Your task to perform on an android device: toggle notifications settings in the gmail app Image 0: 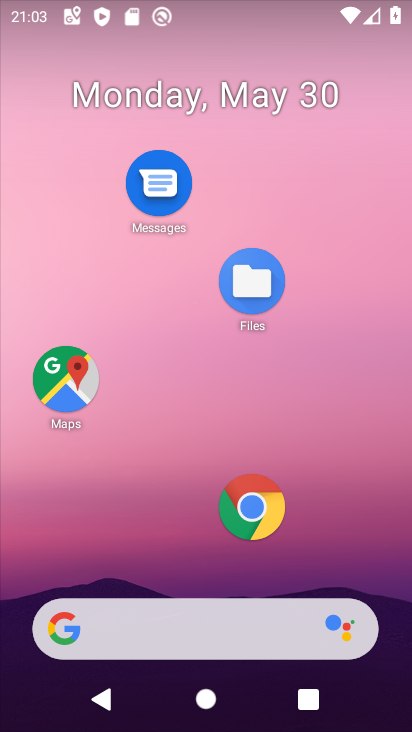
Step 0: drag from (182, 570) to (249, 122)
Your task to perform on an android device: toggle notifications settings in the gmail app Image 1: 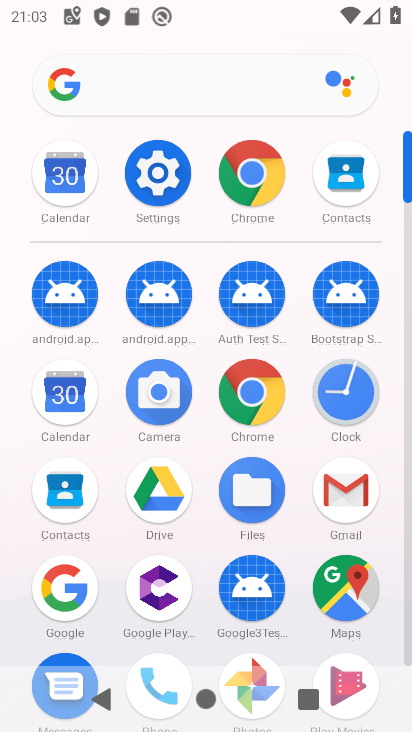
Step 1: click (340, 494)
Your task to perform on an android device: toggle notifications settings in the gmail app Image 2: 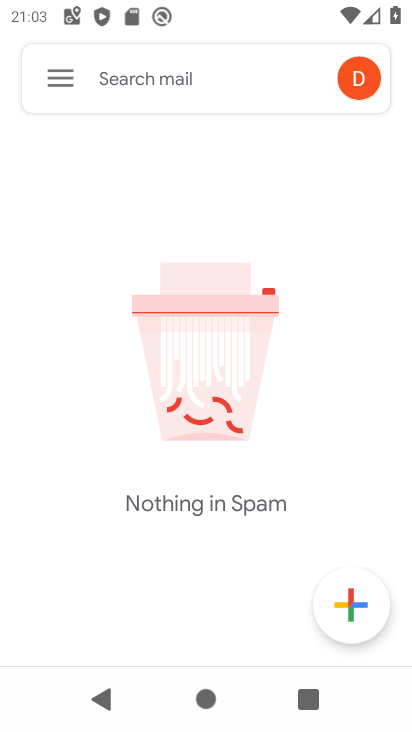
Step 2: click (70, 82)
Your task to perform on an android device: toggle notifications settings in the gmail app Image 3: 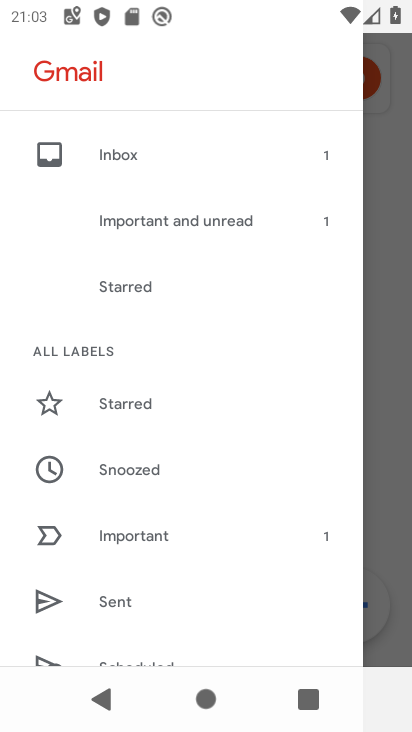
Step 3: drag from (148, 580) to (161, 397)
Your task to perform on an android device: toggle notifications settings in the gmail app Image 4: 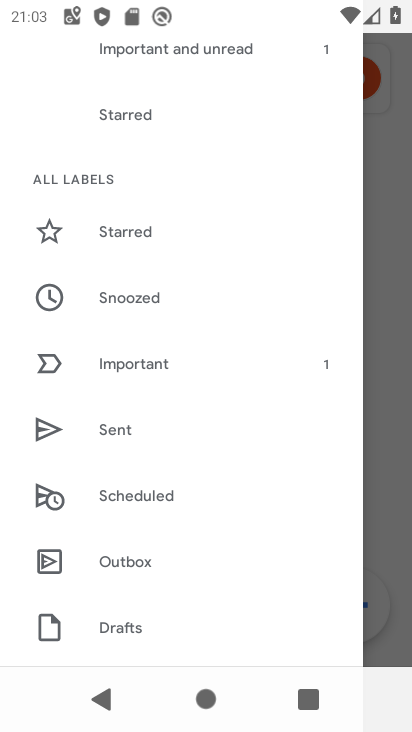
Step 4: drag from (131, 566) to (143, 408)
Your task to perform on an android device: toggle notifications settings in the gmail app Image 5: 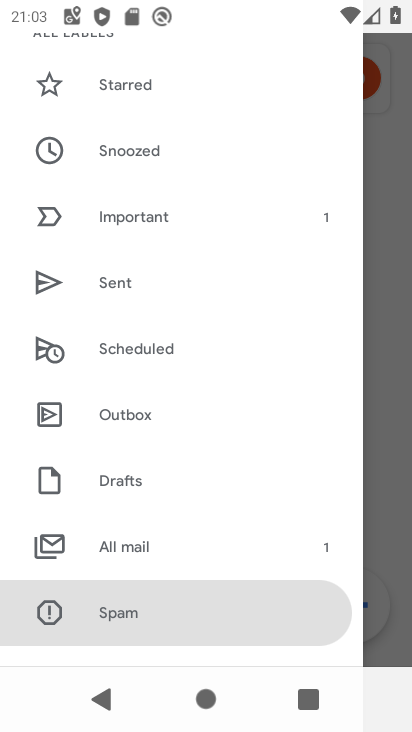
Step 5: drag from (120, 595) to (349, 4)
Your task to perform on an android device: toggle notifications settings in the gmail app Image 6: 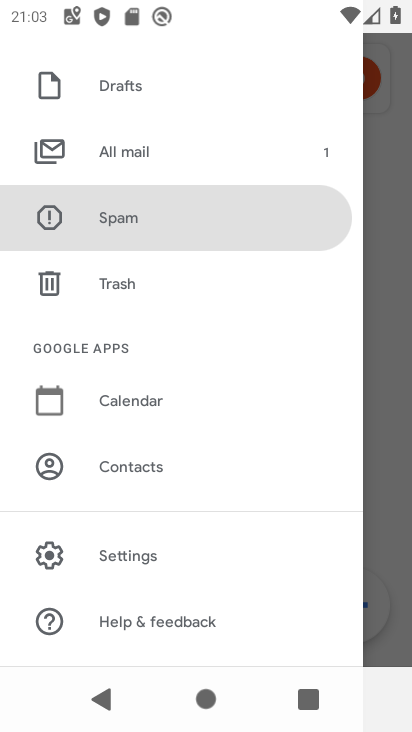
Step 6: click (147, 561)
Your task to perform on an android device: toggle notifications settings in the gmail app Image 7: 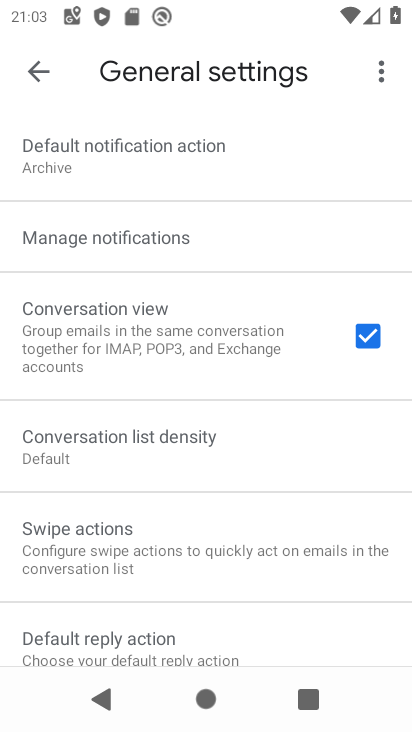
Step 7: click (215, 236)
Your task to perform on an android device: toggle notifications settings in the gmail app Image 8: 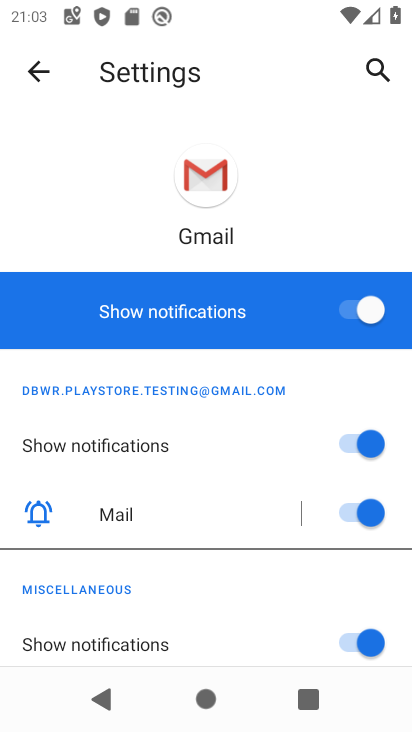
Step 8: click (330, 310)
Your task to perform on an android device: toggle notifications settings in the gmail app Image 9: 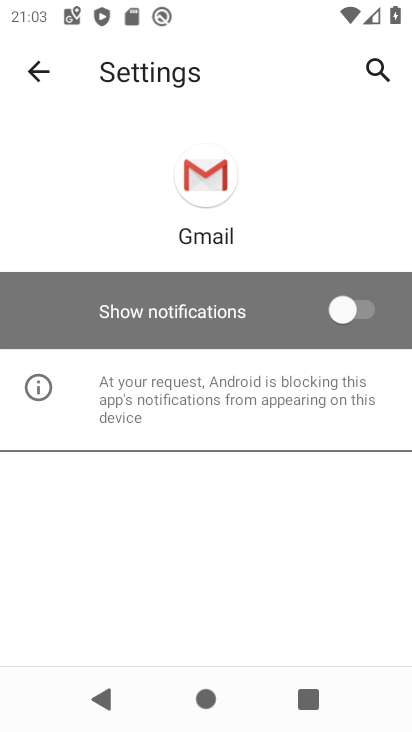
Step 9: task complete